Your task to perform on an android device: install app "Lyft - Rideshare, Bikes, Scooters & Transit" Image 0: 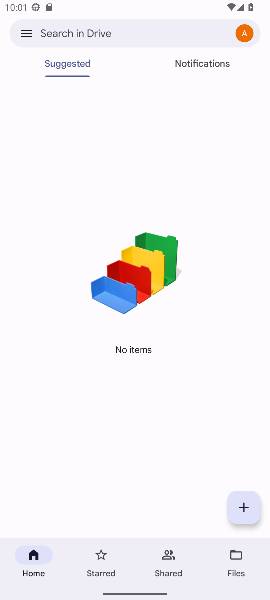
Step 0: press home button
Your task to perform on an android device: install app "Lyft - Rideshare, Bikes, Scooters & Transit" Image 1: 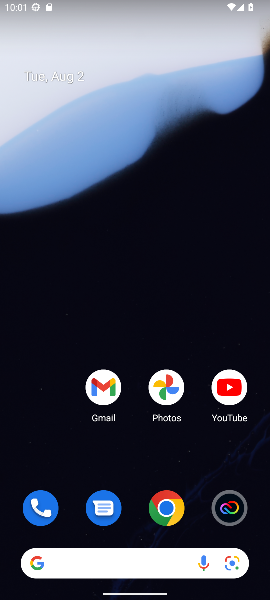
Step 1: drag from (119, 405) to (151, 4)
Your task to perform on an android device: install app "Lyft - Rideshare, Bikes, Scooters & Transit" Image 2: 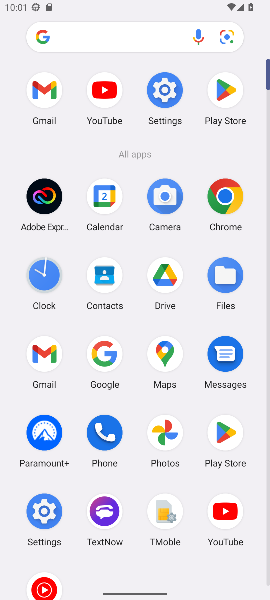
Step 2: click (222, 95)
Your task to perform on an android device: install app "Lyft - Rideshare, Bikes, Scooters & Transit" Image 3: 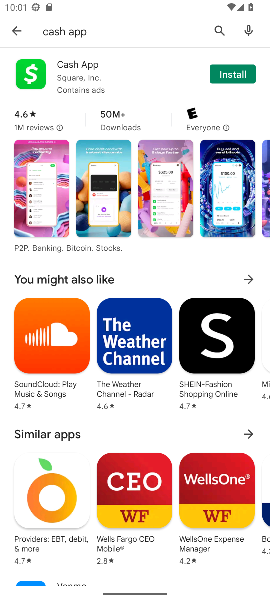
Step 3: click (216, 24)
Your task to perform on an android device: install app "Lyft - Rideshare, Bikes, Scooters & Transit" Image 4: 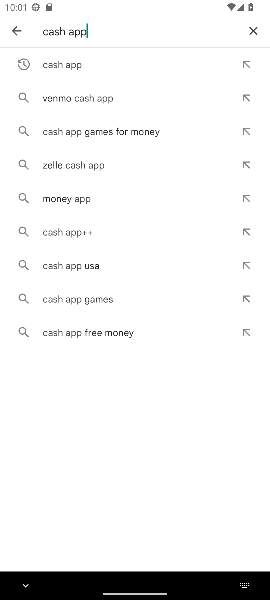
Step 4: click (248, 29)
Your task to perform on an android device: install app "Lyft - Rideshare, Bikes, Scooters & Transit" Image 5: 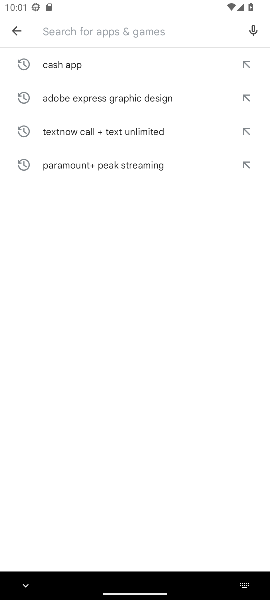
Step 5: type "Lyft - Rideshare, Bikes, Scooters & Transit"
Your task to perform on an android device: install app "Lyft - Rideshare, Bikes, Scooters & Transit" Image 6: 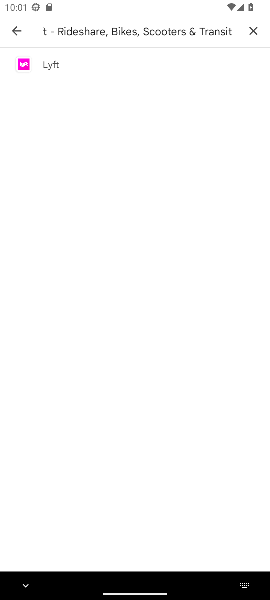
Step 6: click (53, 70)
Your task to perform on an android device: install app "Lyft - Rideshare, Bikes, Scooters & Transit" Image 7: 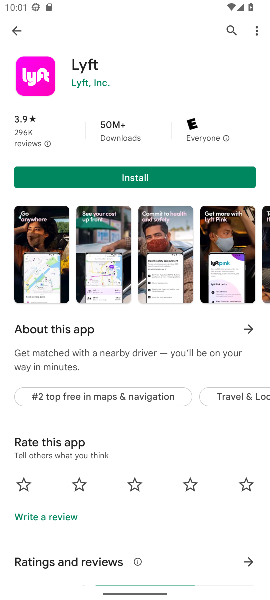
Step 7: click (121, 172)
Your task to perform on an android device: install app "Lyft - Rideshare, Bikes, Scooters & Transit" Image 8: 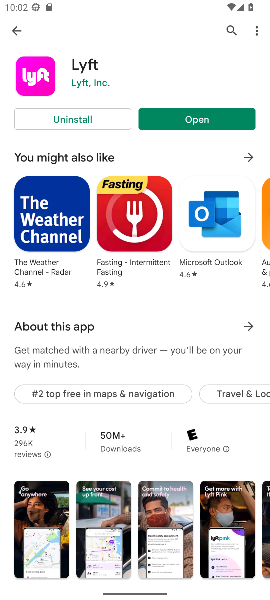
Step 8: task complete